Your task to perform on an android device: Show me recent news Image 0: 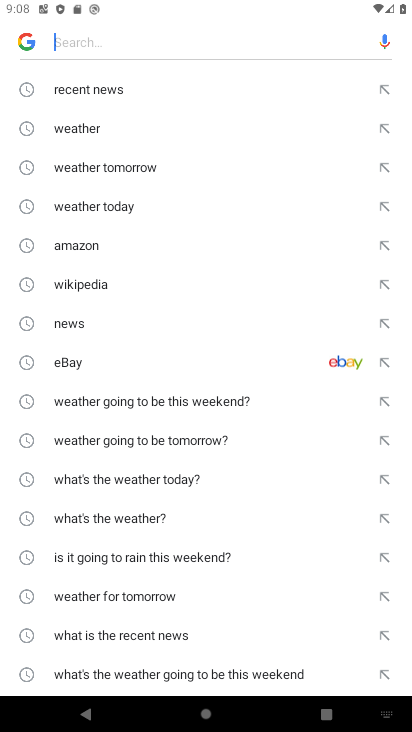
Step 0: click (113, 86)
Your task to perform on an android device: Show me recent news Image 1: 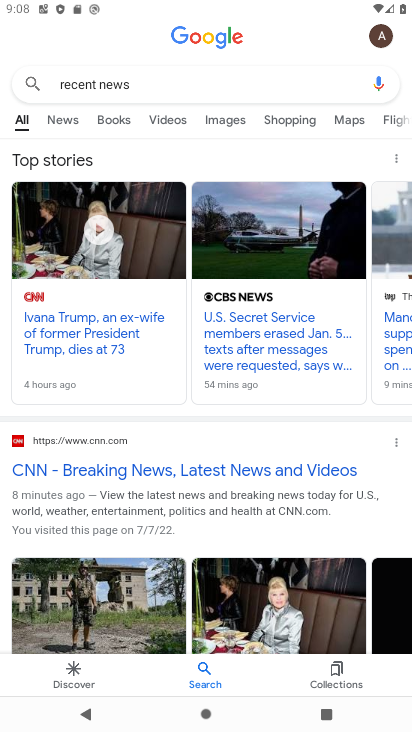
Step 1: task complete